Your task to perform on an android device: move a message to another label in the gmail app Image 0: 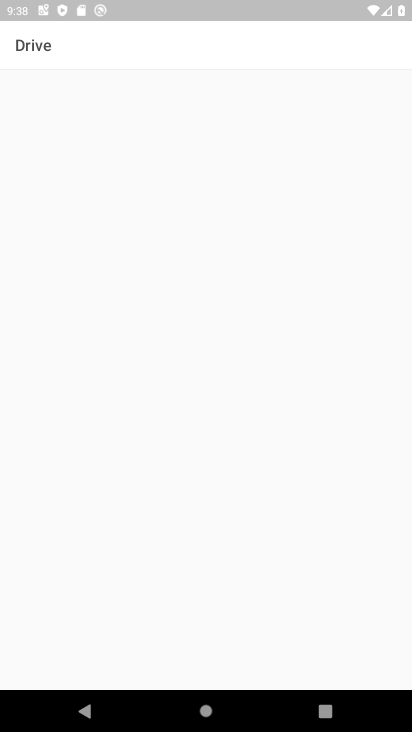
Step 0: drag from (253, 550) to (262, 237)
Your task to perform on an android device: move a message to another label in the gmail app Image 1: 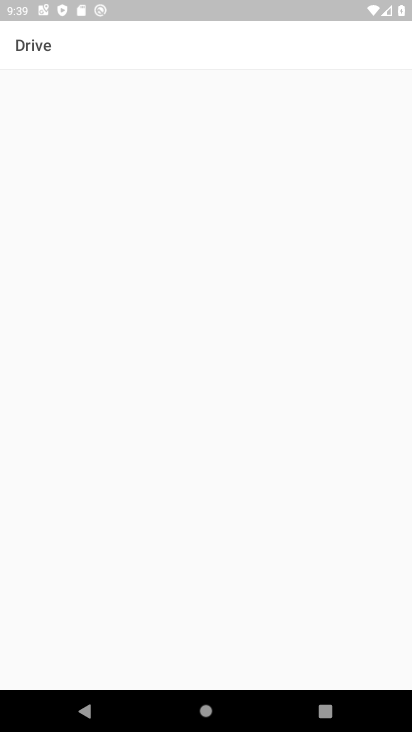
Step 1: press home button
Your task to perform on an android device: move a message to another label in the gmail app Image 2: 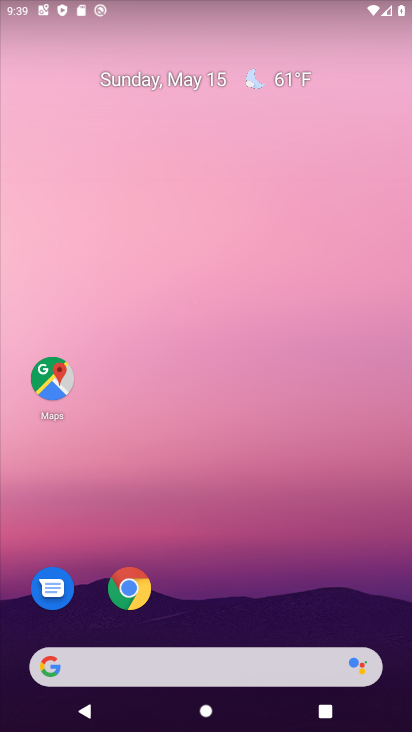
Step 2: drag from (199, 618) to (248, 20)
Your task to perform on an android device: move a message to another label in the gmail app Image 3: 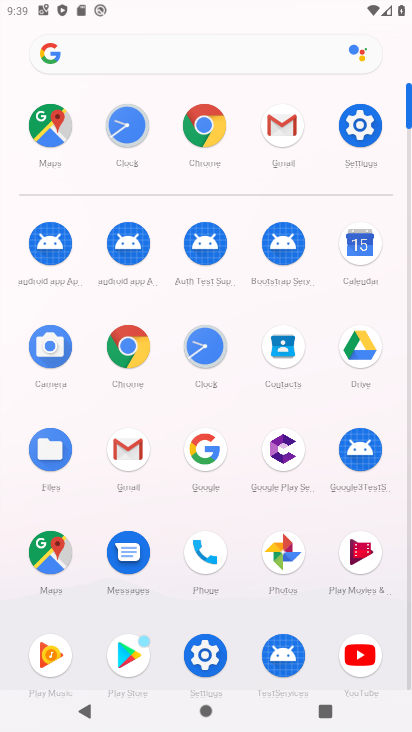
Step 3: click (124, 454)
Your task to perform on an android device: move a message to another label in the gmail app Image 4: 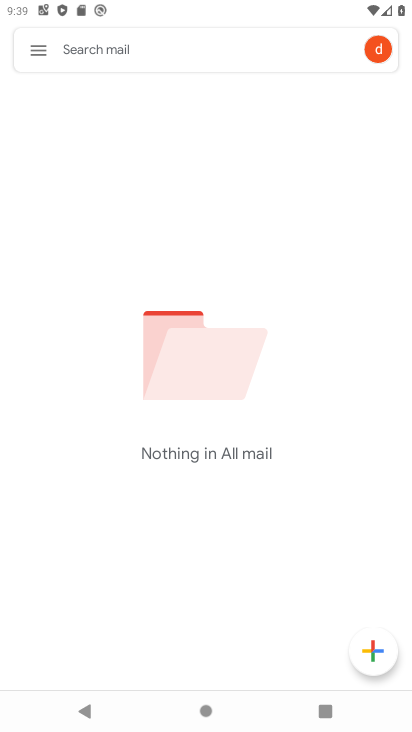
Step 4: click (29, 54)
Your task to perform on an android device: move a message to another label in the gmail app Image 5: 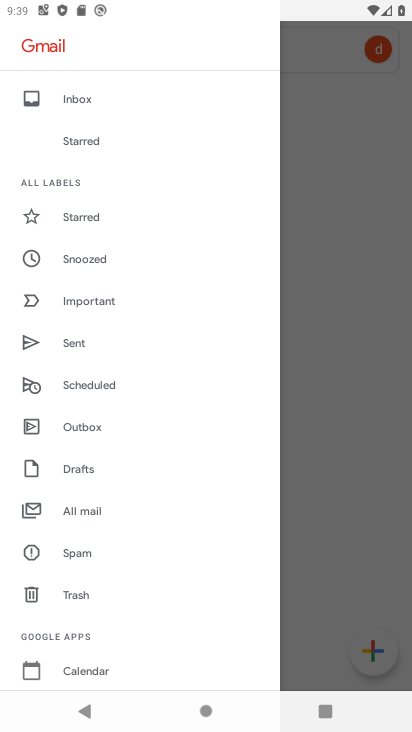
Step 5: click (110, 509)
Your task to perform on an android device: move a message to another label in the gmail app Image 6: 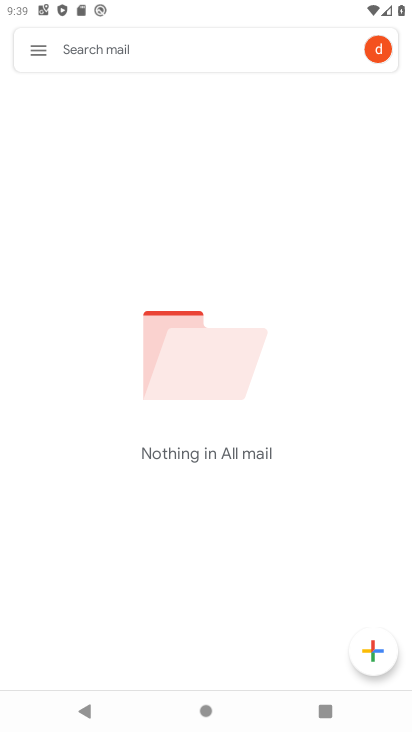
Step 6: task complete